Your task to perform on an android device: Search for seafood restaurants on Google Maps Image 0: 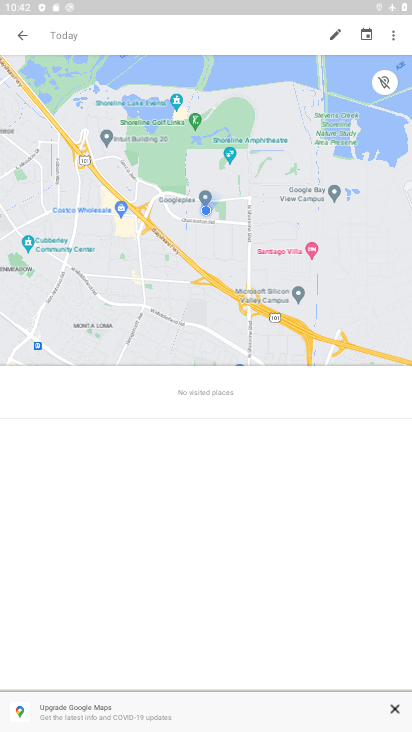
Step 0: click (23, 27)
Your task to perform on an android device: Search for seafood restaurants on Google Maps Image 1: 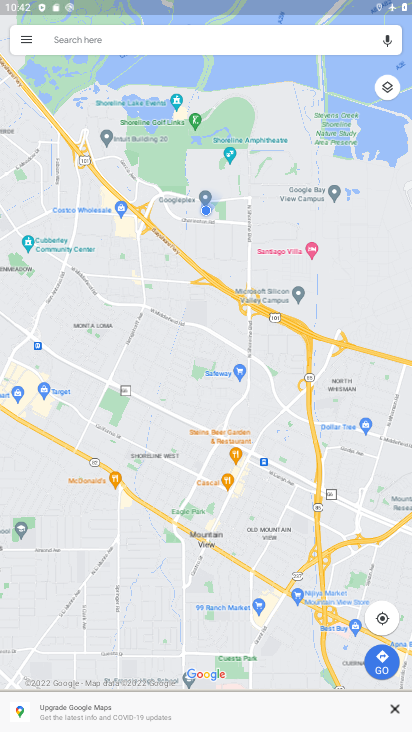
Step 1: click (85, 34)
Your task to perform on an android device: Search for seafood restaurants on Google Maps Image 2: 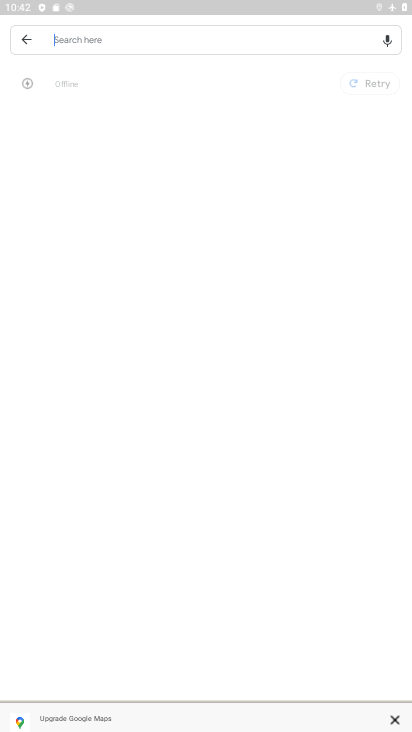
Step 2: click (102, 47)
Your task to perform on an android device: Search for seafood restaurants on Google Maps Image 3: 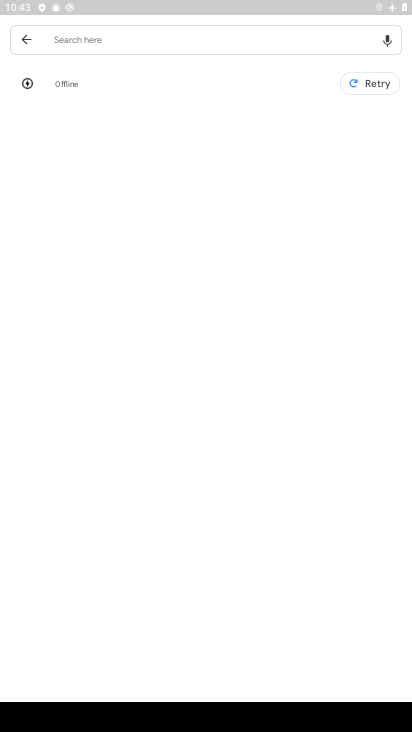
Step 3: type "seafood resaturants"
Your task to perform on an android device: Search for seafood restaurants on Google Maps Image 4: 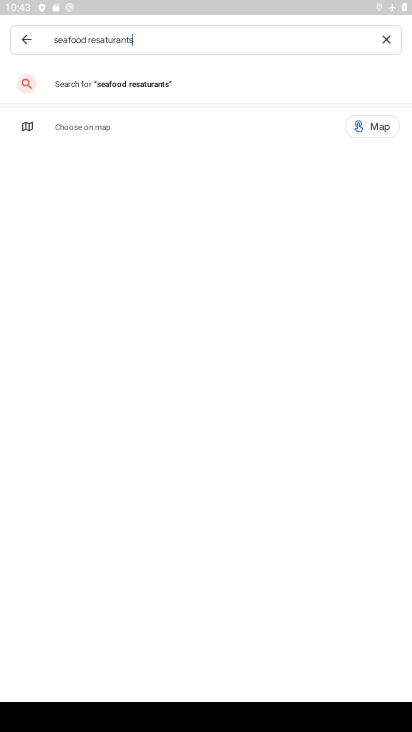
Step 4: click (155, 85)
Your task to perform on an android device: Search for seafood restaurants on Google Maps Image 5: 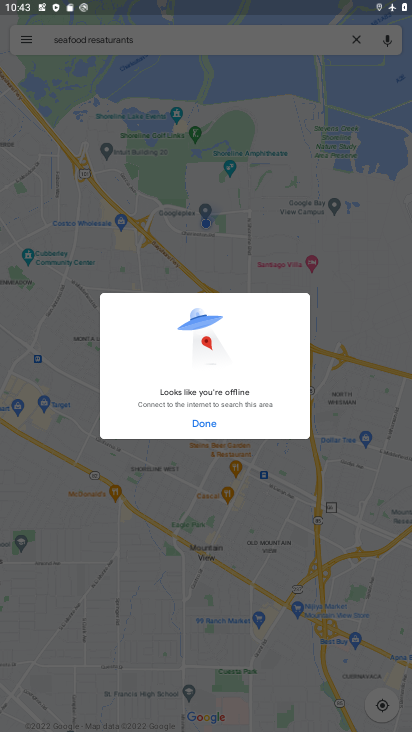
Step 5: click (201, 421)
Your task to perform on an android device: Search for seafood restaurants on Google Maps Image 6: 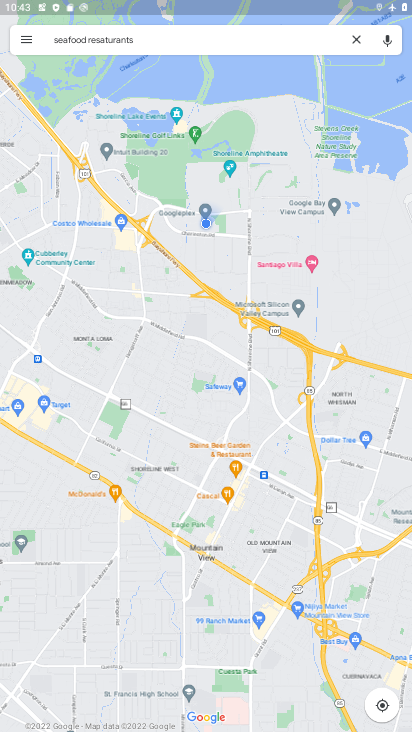
Step 6: drag from (345, 5) to (263, 636)
Your task to perform on an android device: Search for seafood restaurants on Google Maps Image 7: 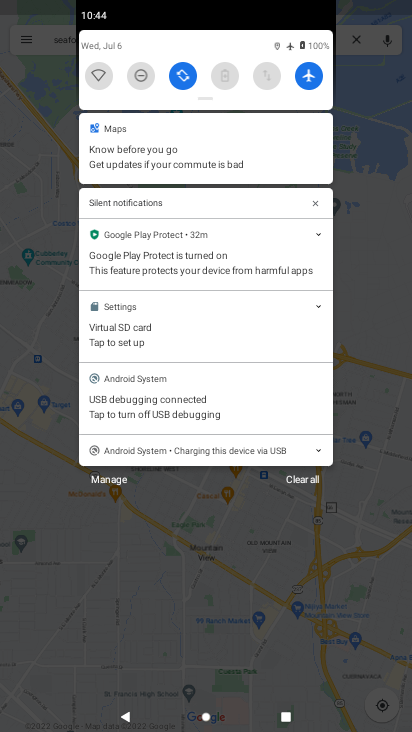
Step 7: click (313, 79)
Your task to perform on an android device: Search for seafood restaurants on Google Maps Image 8: 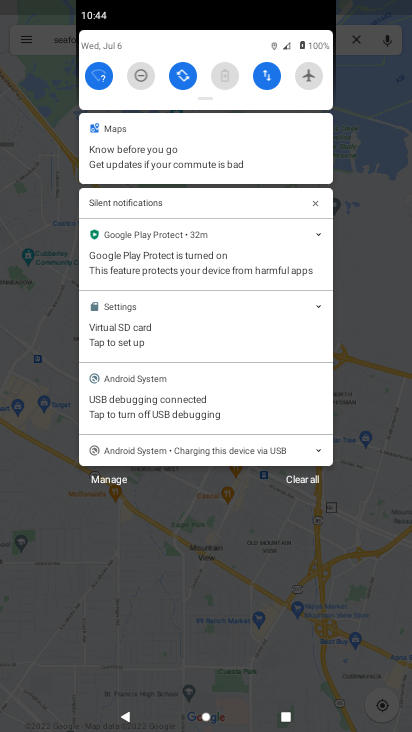
Step 8: click (200, 559)
Your task to perform on an android device: Search for seafood restaurants on Google Maps Image 9: 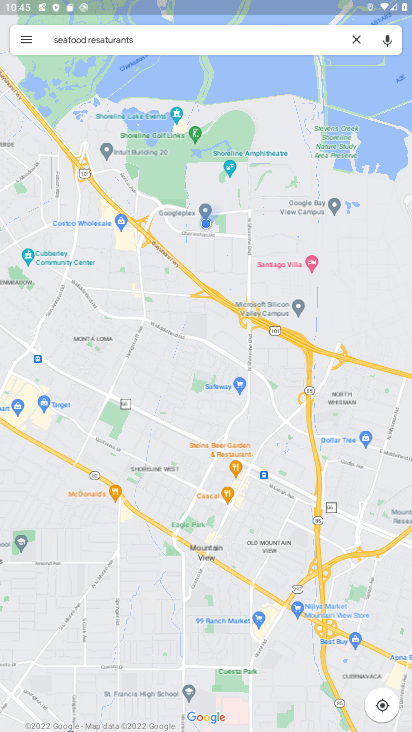
Step 9: click (156, 43)
Your task to perform on an android device: Search for seafood restaurants on Google Maps Image 10: 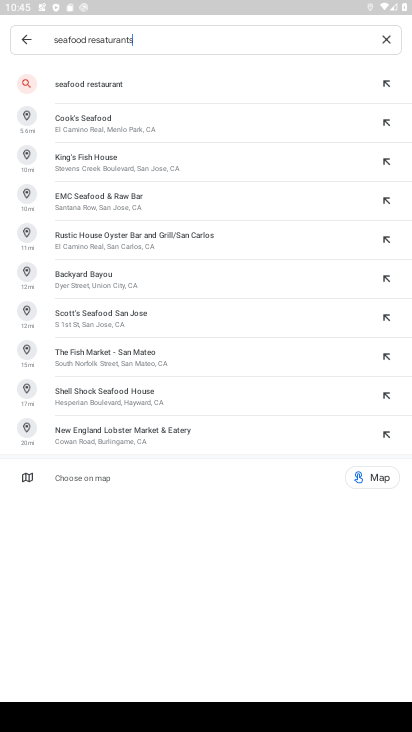
Step 10: click (140, 84)
Your task to perform on an android device: Search for seafood restaurants on Google Maps Image 11: 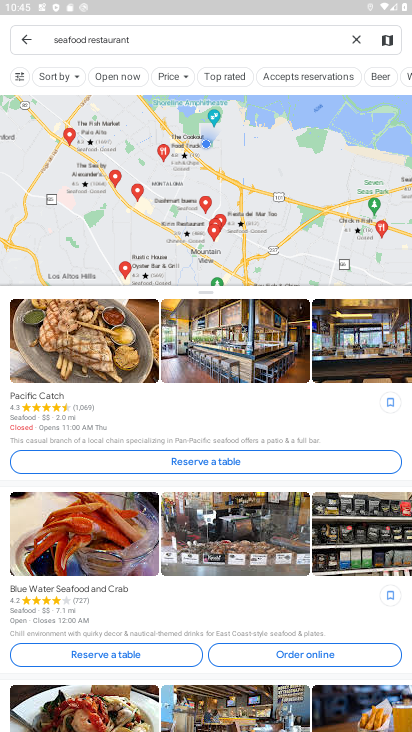
Step 11: task complete